Your task to perform on an android device: turn on data saver in the chrome app Image 0: 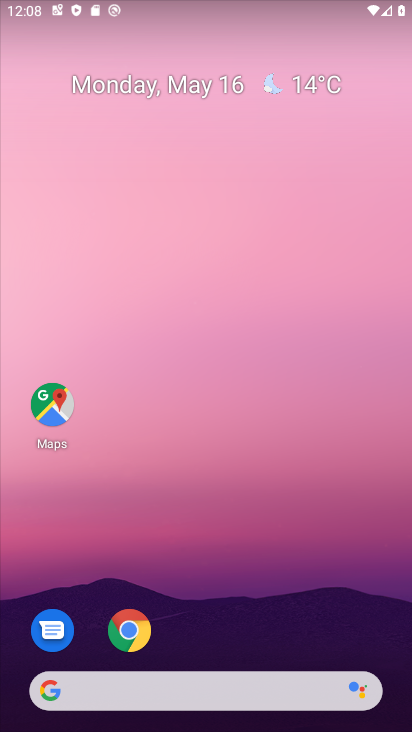
Step 0: click (145, 627)
Your task to perform on an android device: turn on data saver in the chrome app Image 1: 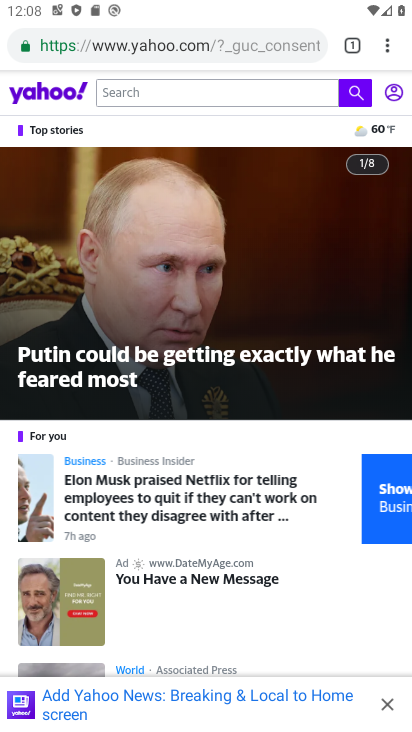
Step 1: click (395, 56)
Your task to perform on an android device: turn on data saver in the chrome app Image 2: 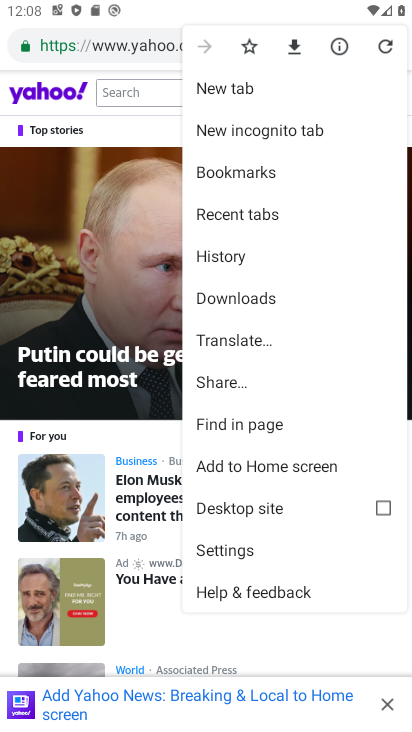
Step 2: click (230, 547)
Your task to perform on an android device: turn on data saver in the chrome app Image 3: 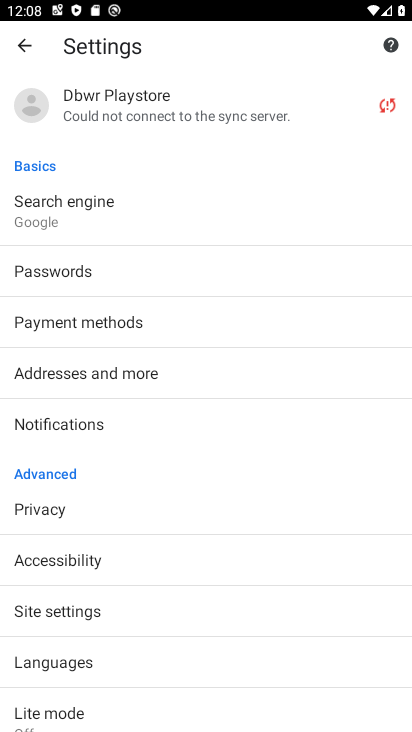
Step 3: drag from (214, 670) to (250, 188)
Your task to perform on an android device: turn on data saver in the chrome app Image 4: 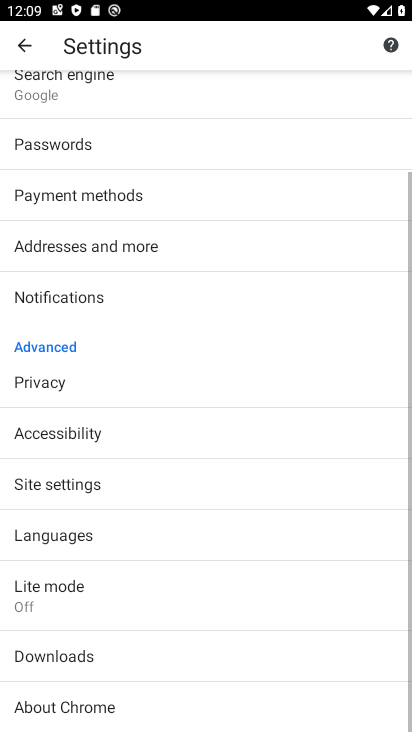
Step 4: click (232, 605)
Your task to perform on an android device: turn on data saver in the chrome app Image 5: 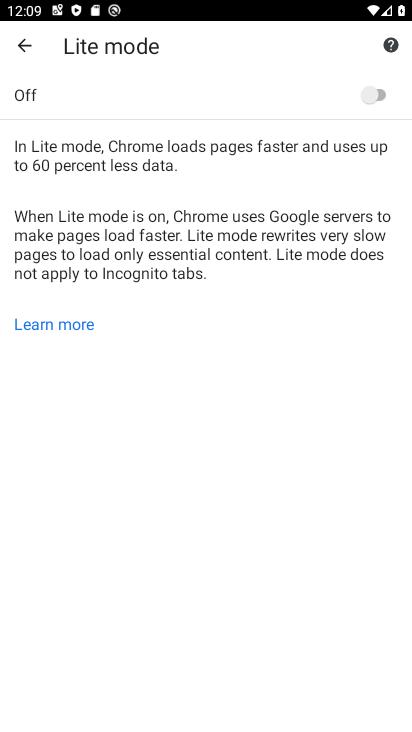
Step 5: click (380, 106)
Your task to perform on an android device: turn on data saver in the chrome app Image 6: 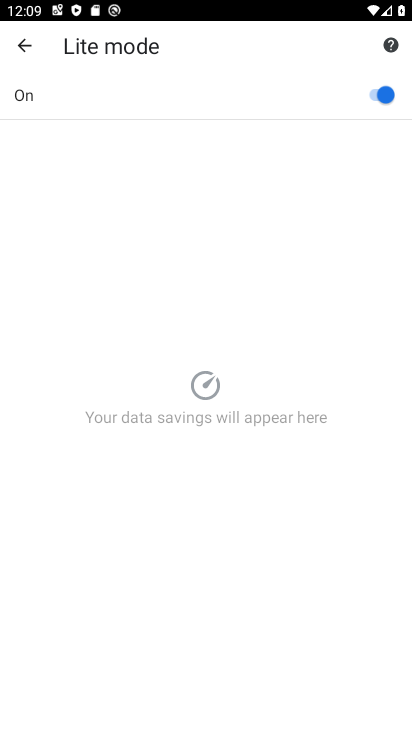
Step 6: task complete